Your task to perform on an android device: turn on bluetooth scan Image 0: 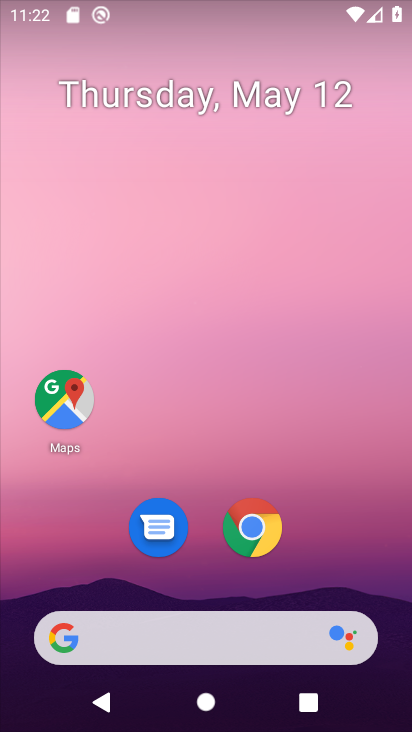
Step 0: drag from (302, 549) to (287, 8)
Your task to perform on an android device: turn on bluetooth scan Image 1: 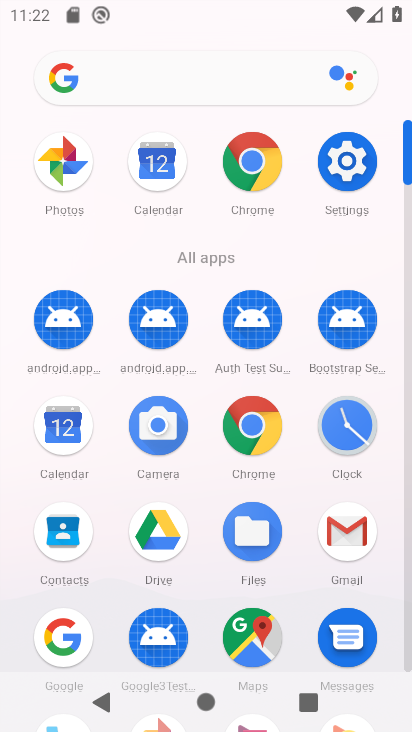
Step 1: click (335, 167)
Your task to perform on an android device: turn on bluetooth scan Image 2: 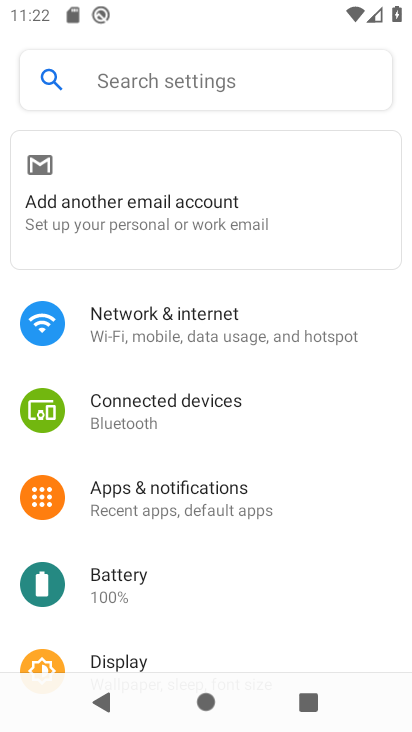
Step 2: drag from (138, 619) to (159, 176)
Your task to perform on an android device: turn on bluetooth scan Image 3: 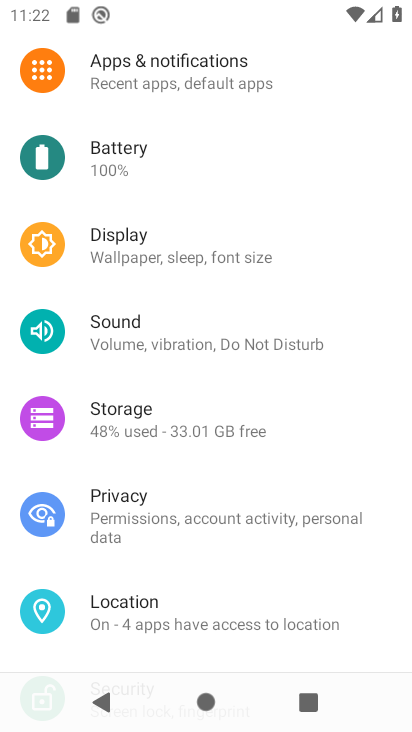
Step 3: click (100, 608)
Your task to perform on an android device: turn on bluetooth scan Image 4: 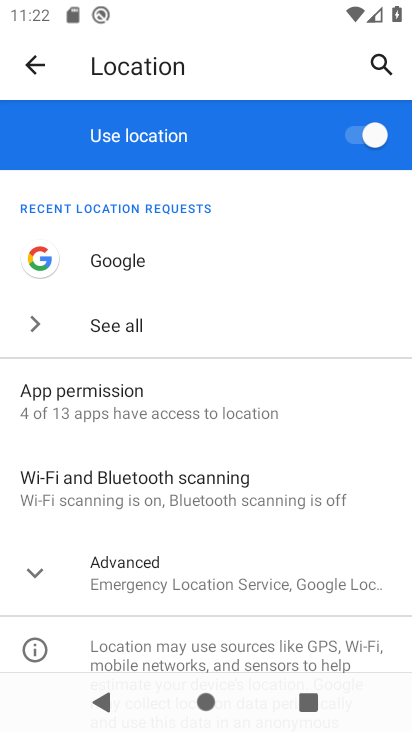
Step 4: click (196, 496)
Your task to perform on an android device: turn on bluetooth scan Image 5: 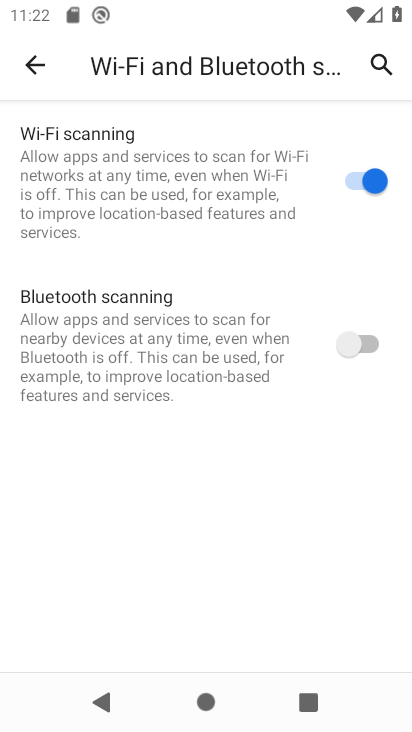
Step 5: click (369, 338)
Your task to perform on an android device: turn on bluetooth scan Image 6: 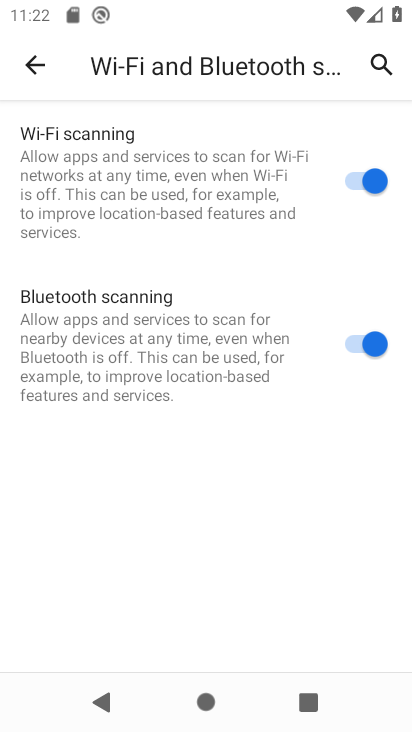
Step 6: task complete